Your task to perform on an android device: move an email to a new category in the gmail app Image 0: 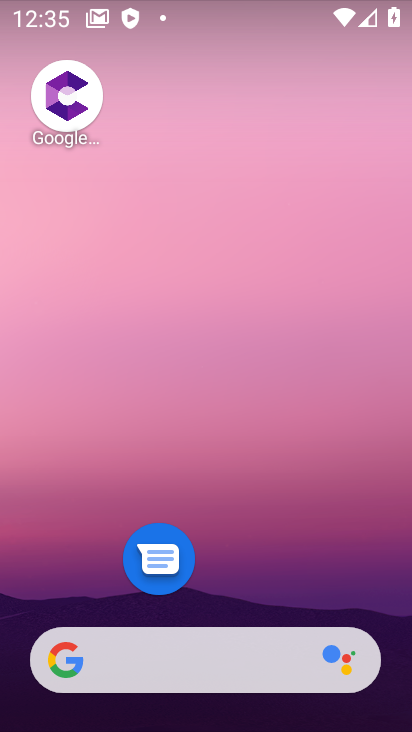
Step 0: drag from (223, 606) to (288, 46)
Your task to perform on an android device: move an email to a new category in the gmail app Image 1: 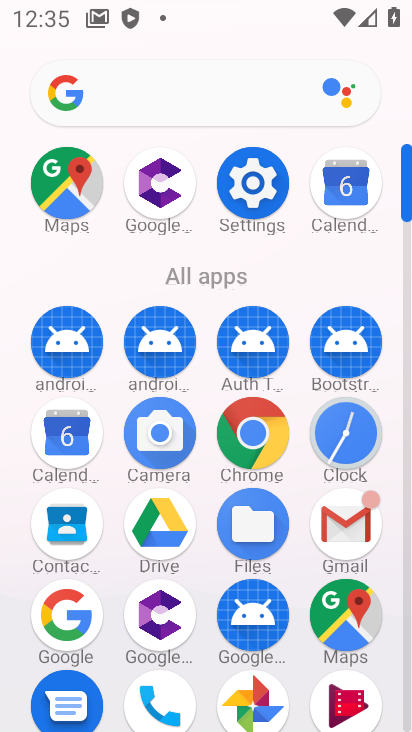
Step 1: click (327, 501)
Your task to perform on an android device: move an email to a new category in the gmail app Image 2: 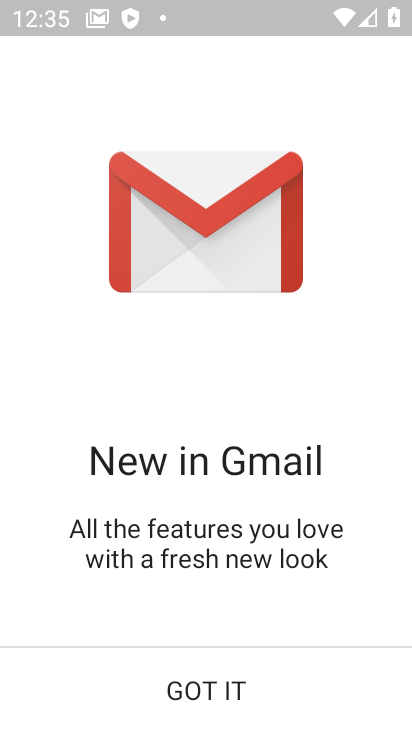
Step 2: click (203, 714)
Your task to perform on an android device: move an email to a new category in the gmail app Image 3: 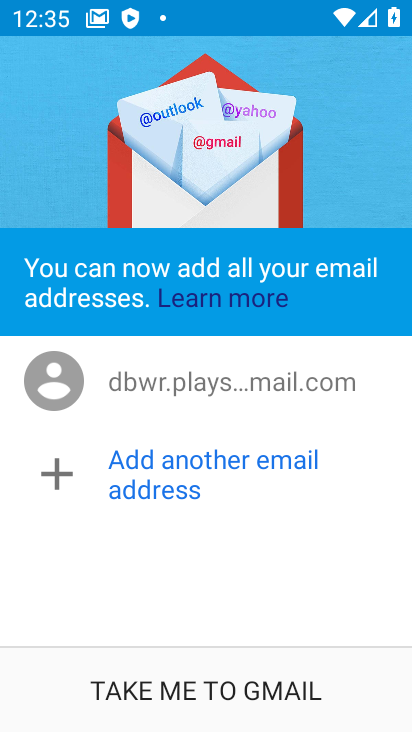
Step 3: click (203, 714)
Your task to perform on an android device: move an email to a new category in the gmail app Image 4: 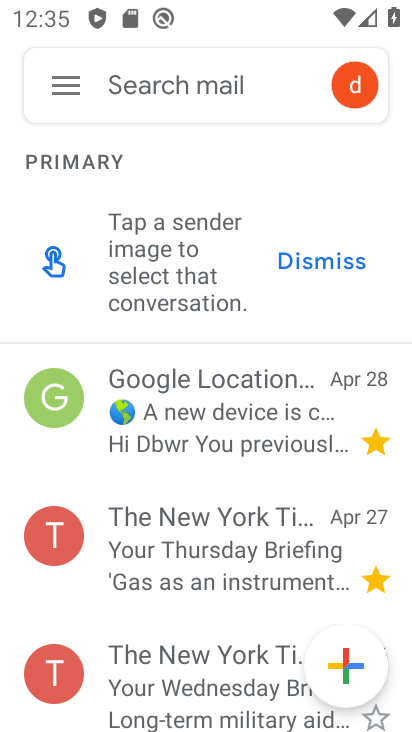
Step 4: click (184, 384)
Your task to perform on an android device: move an email to a new category in the gmail app Image 5: 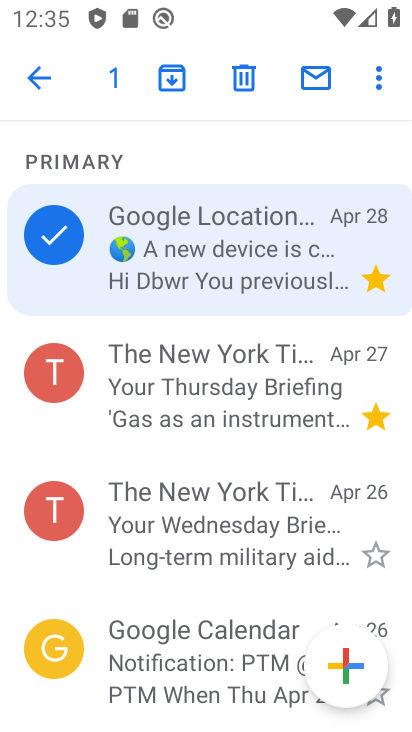
Step 5: click (375, 68)
Your task to perform on an android device: move an email to a new category in the gmail app Image 6: 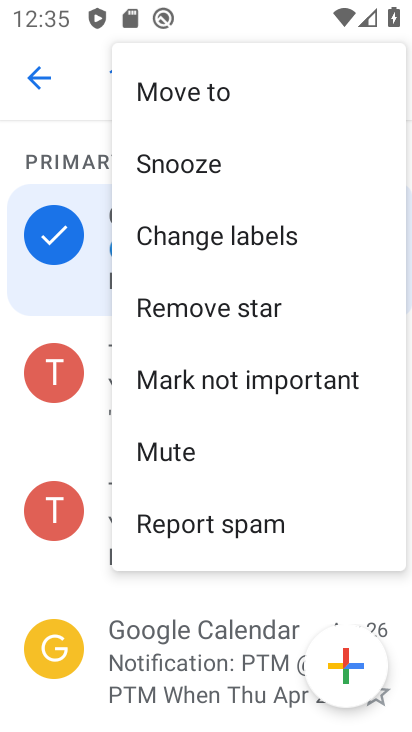
Step 6: click (215, 119)
Your task to perform on an android device: move an email to a new category in the gmail app Image 7: 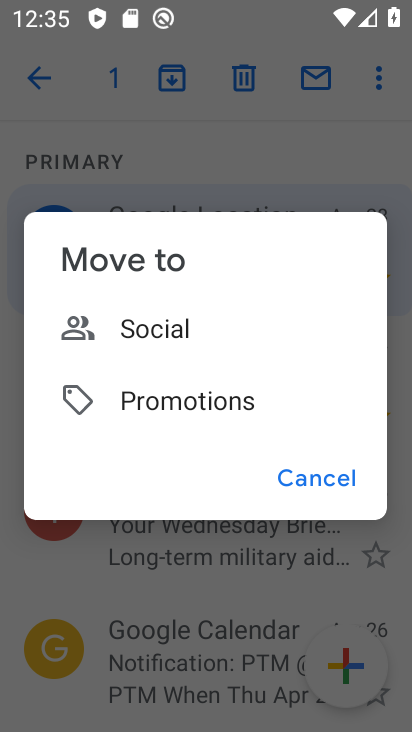
Step 7: click (176, 321)
Your task to perform on an android device: move an email to a new category in the gmail app Image 8: 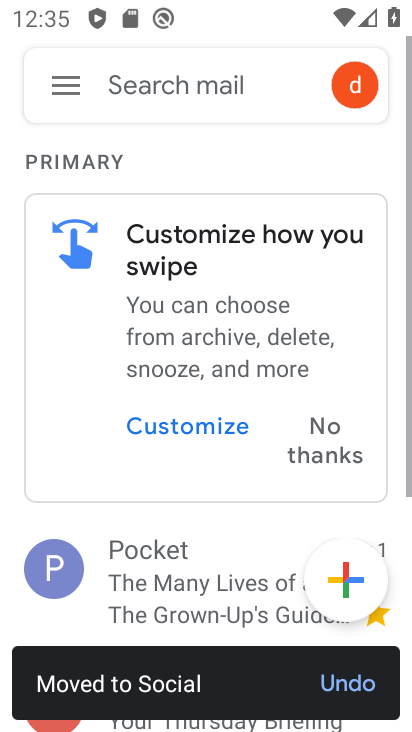
Step 8: task complete